Your task to perform on an android device: search for starred emails in the gmail app Image 0: 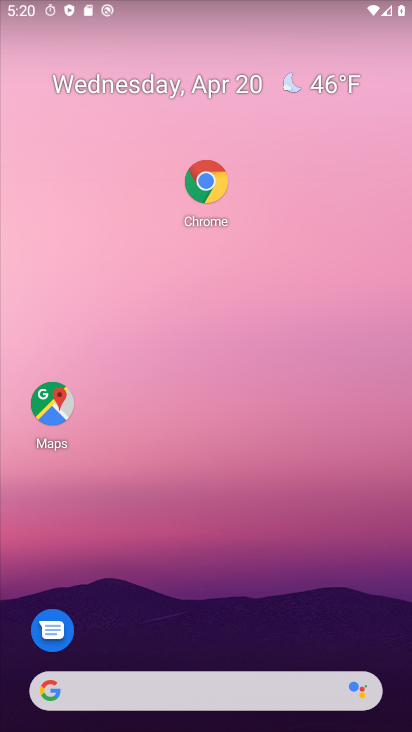
Step 0: drag from (210, 552) to (250, 305)
Your task to perform on an android device: search for starred emails in the gmail app Image 1: 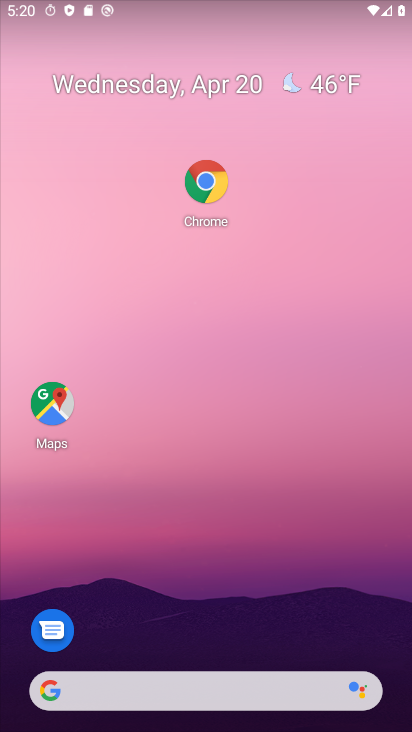
Step 1: drag from (200, 637) to (318, 153)
Your task to perform on an android device: search for starred emails in the gmail app Image 2: 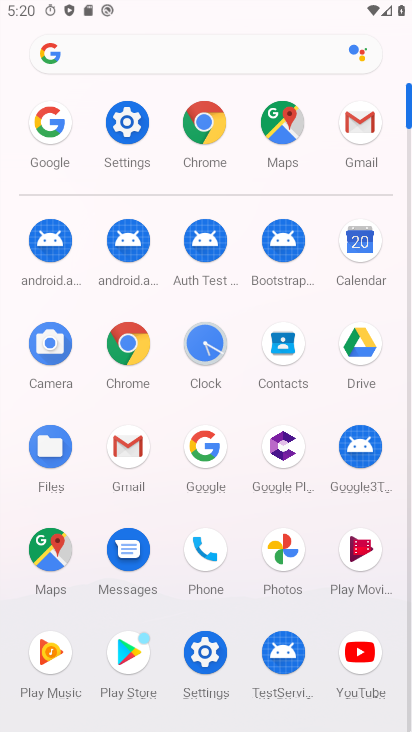
Step 2: click (365, 125)
Your task to perform on an android device: search for starred emails in the gmail app Image 3: 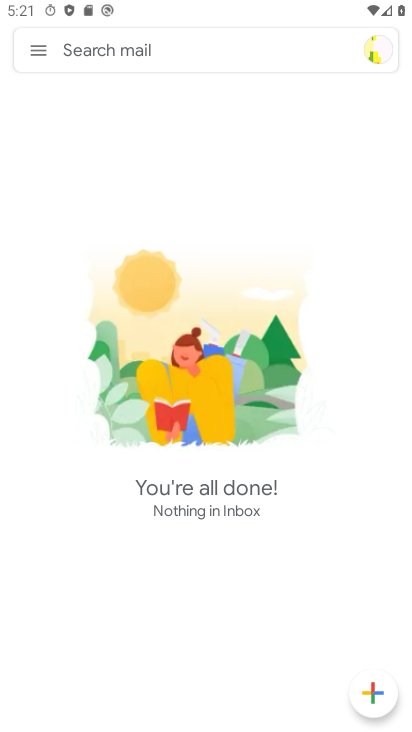
Step 3: click (40, 52)
Your task to perform on an android device: search for starred emails in the gmail app Image 4: 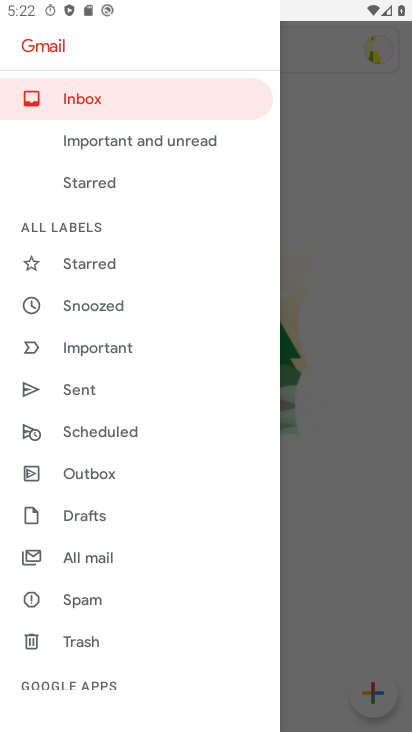
Step 4: click (84, 266)
Your task to perform on an android device: search for starred emails in the gmail app Image 5: 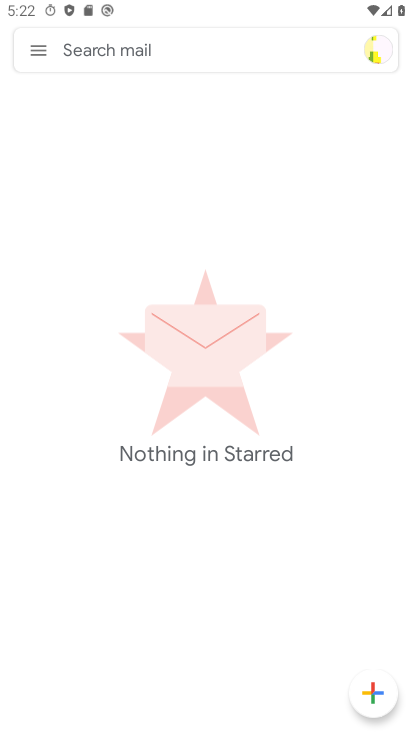
Step 5: task complete